Your task to perform on an android device: turn on priority inbox in the gmail app Image 0: 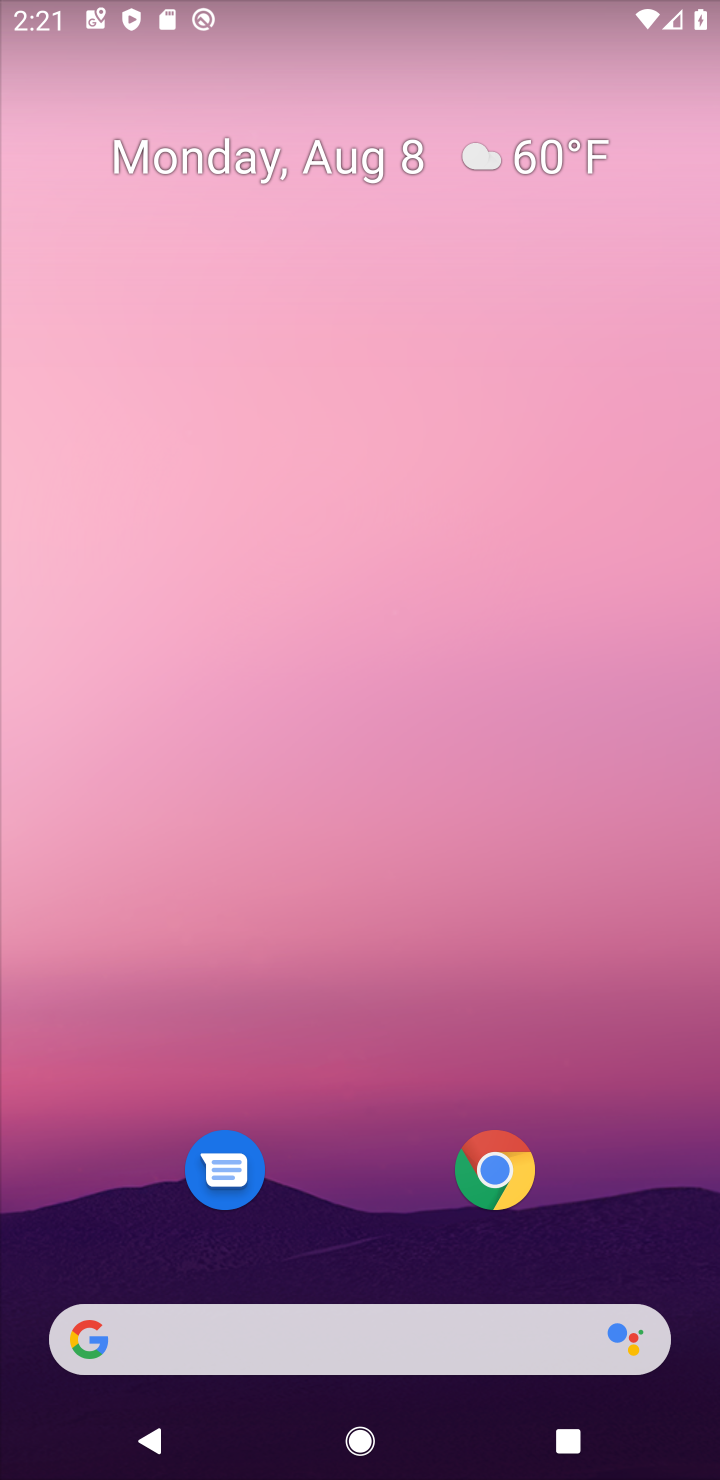
Step 0: drag from (381, 888) to (381, 373)
Your task to perform on an android device: turn on priority inbox in the gmail app Image 1: 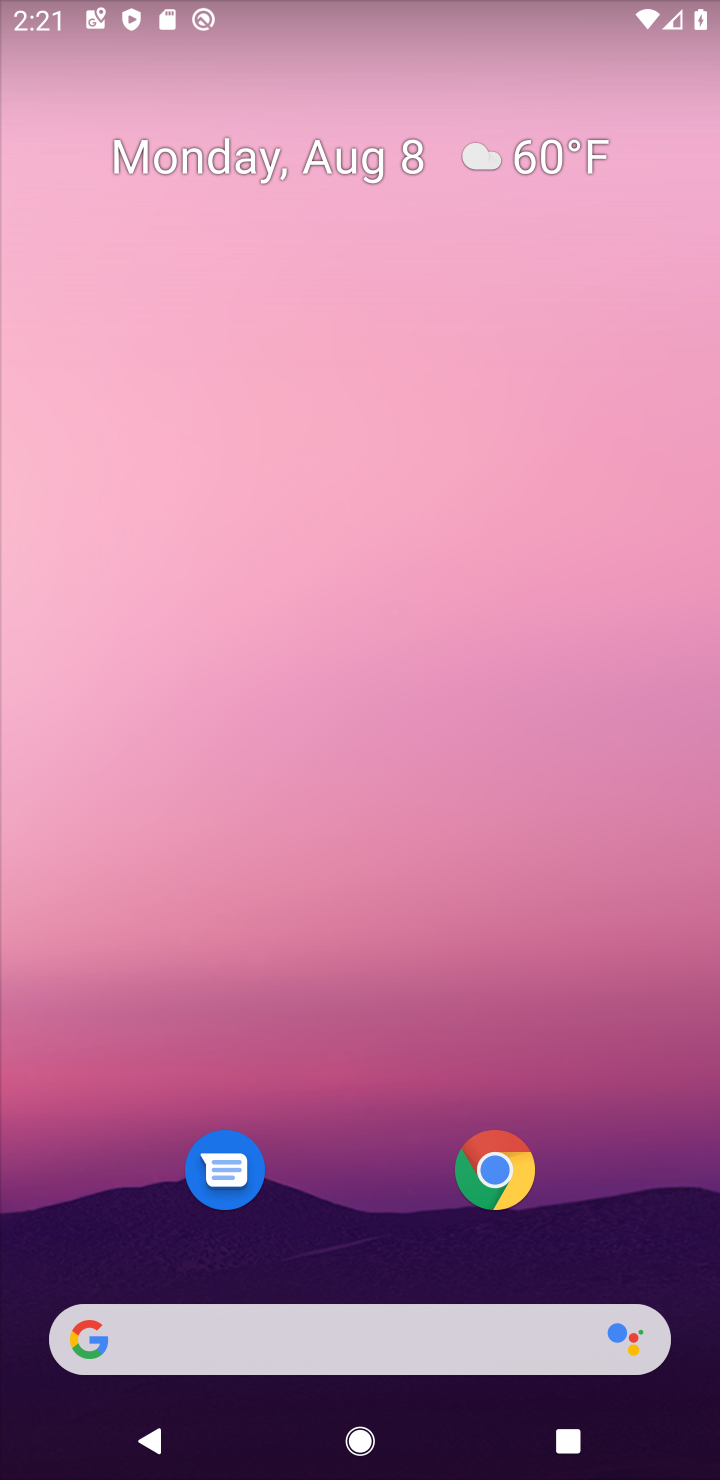
Step 1: drag from (347, 915) to (333, 391)
Your task to perform on an android device: turn on priority inbox in the gmail app Image 2: 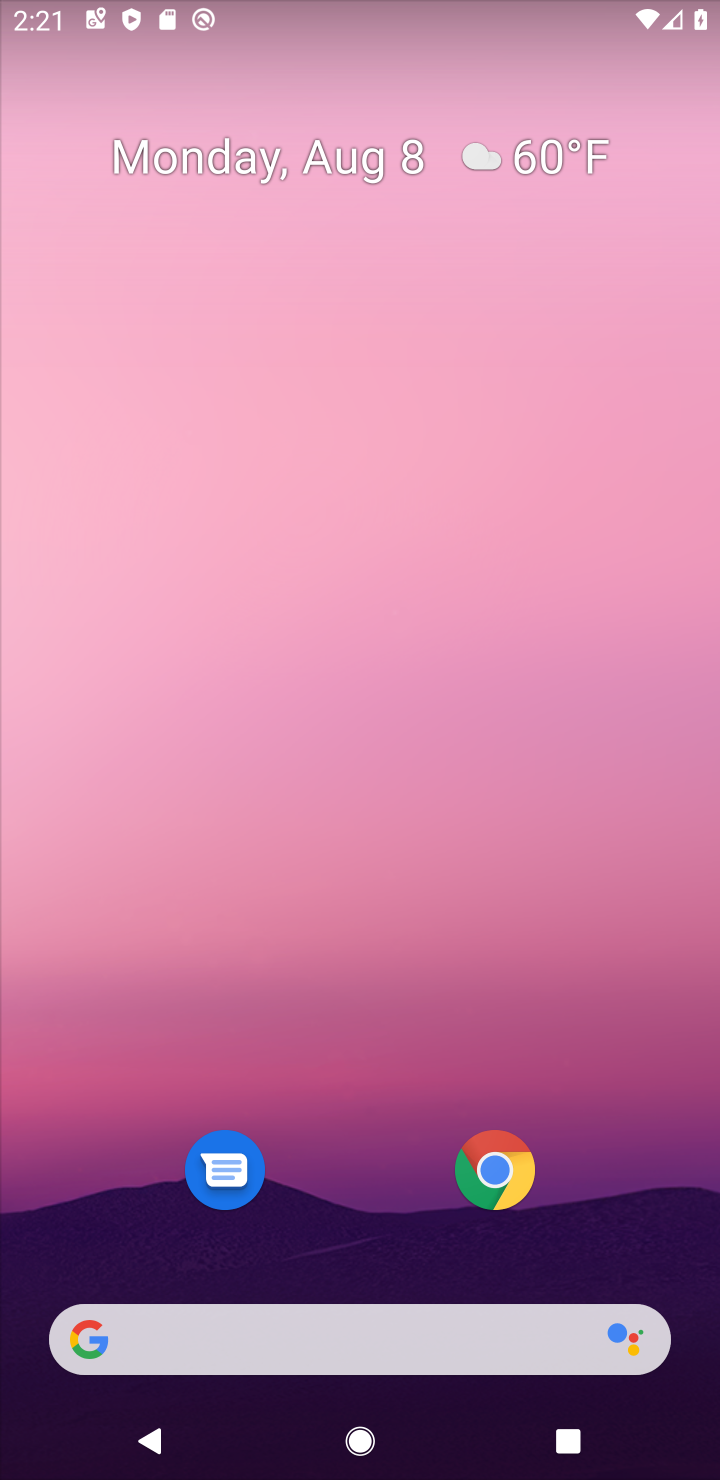
Step 2: drag from (354, 1256) to (364, 529)
Your task to perform on an android device: turn on priority inbox in the gmail app Image 3: 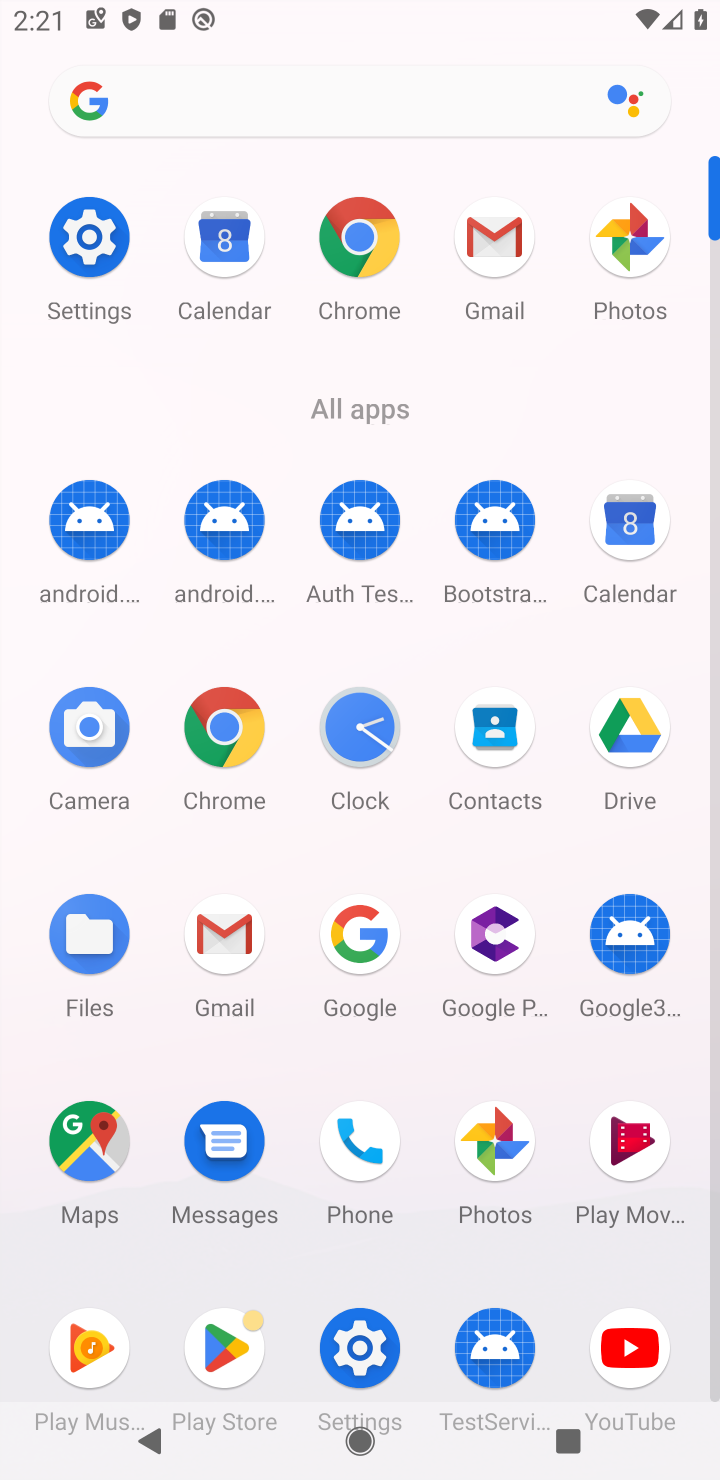
Step 3: click (507, 236)
Your task to perform on an android device: turn on priority inbox in the gmail app Image 4: 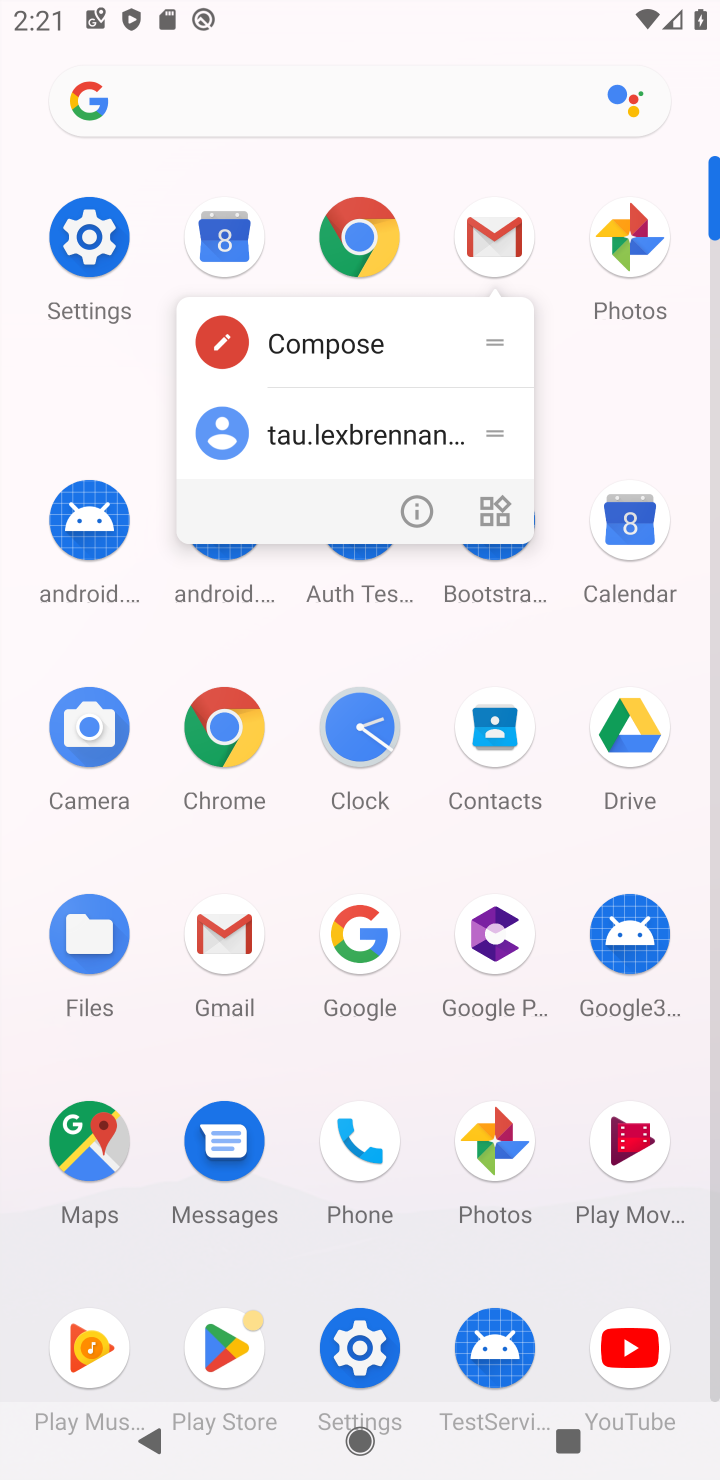
Step 4: click (507, 236)
Your task to perform on an android device: turn on priority inbox in the gmail app Image 5: 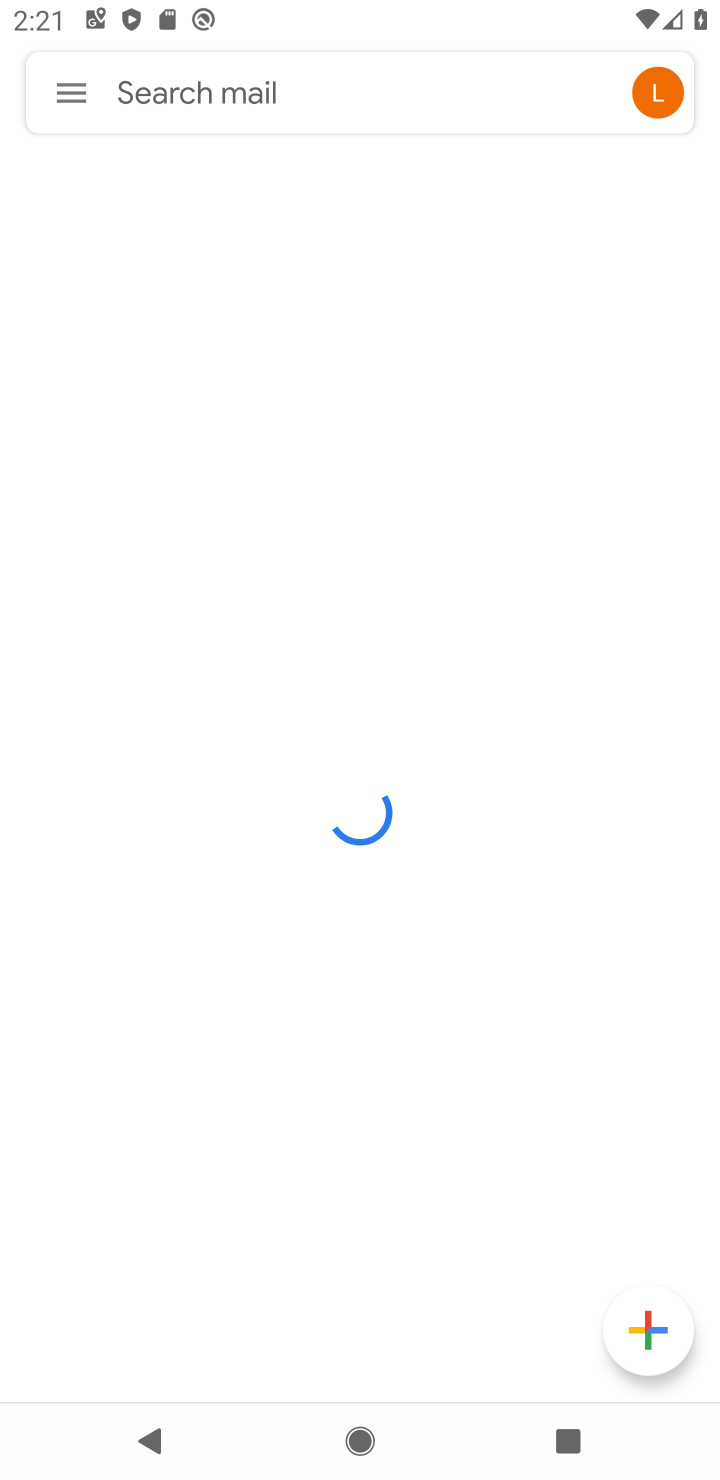
Step 5: click (49, 93)
Your task to perform on an android device: turn on priority inbox in the gmail app Image 6: 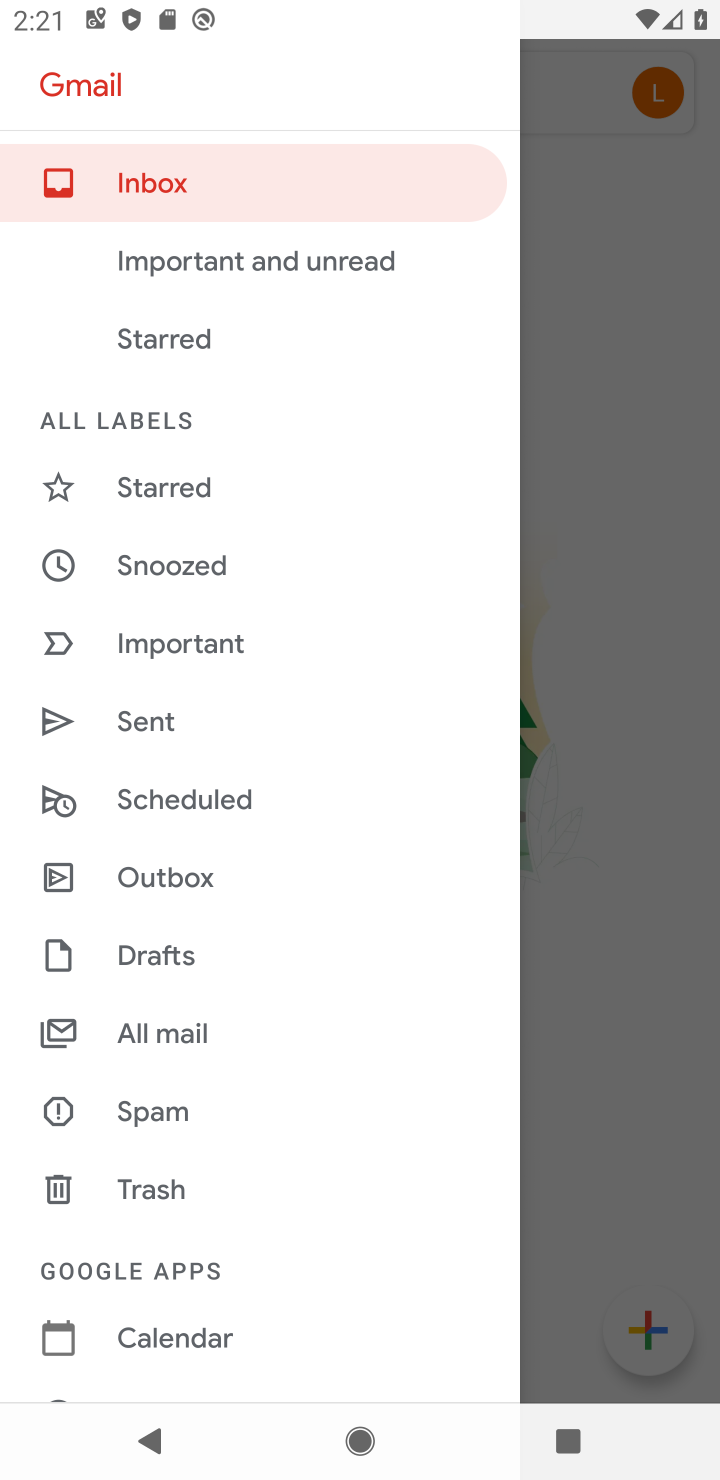
Step 6: drag from (262, 1221) to (324, 632)
Your task to perform on an android device: turn on priority inbox in the gmail app Image 7: 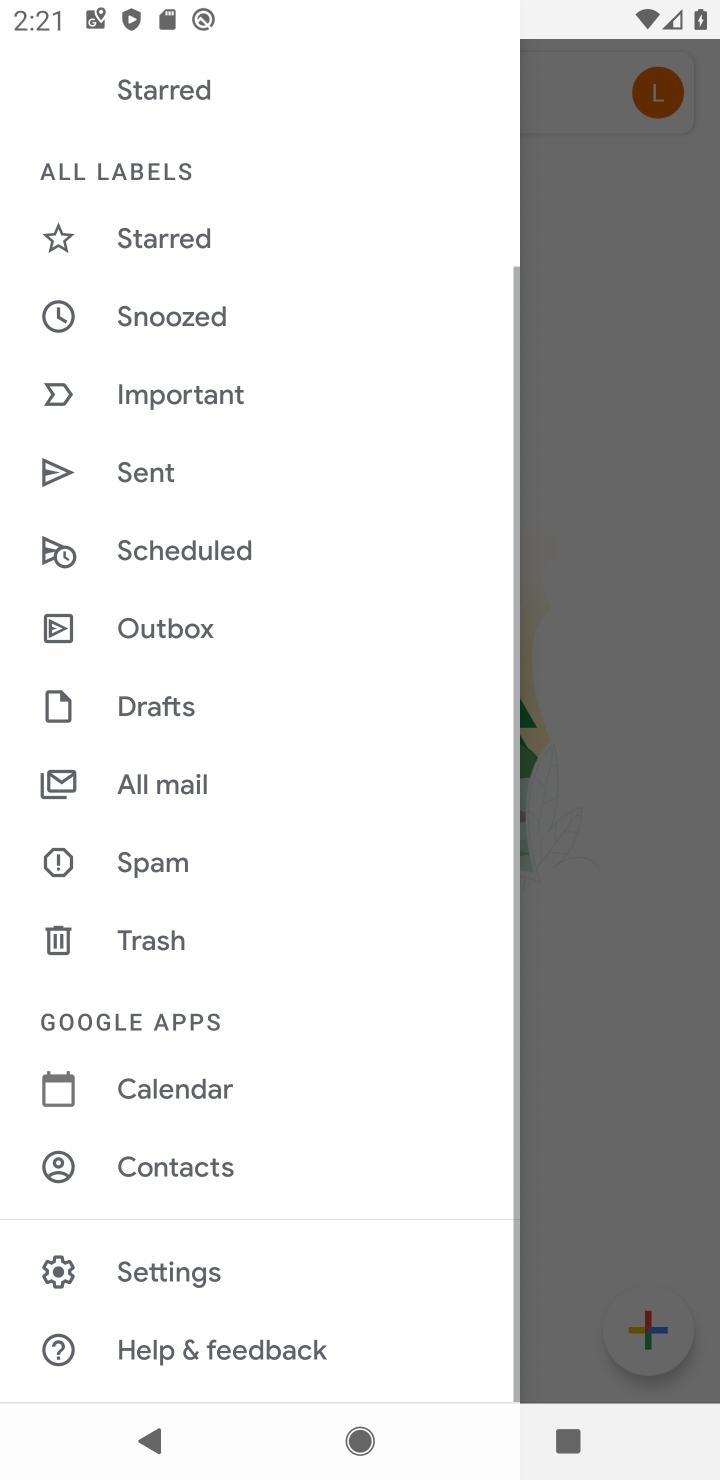
Step 7: click (209, 1264)
Your task to perform on an android device: turn on priority inbox in the gmail app Image 8: 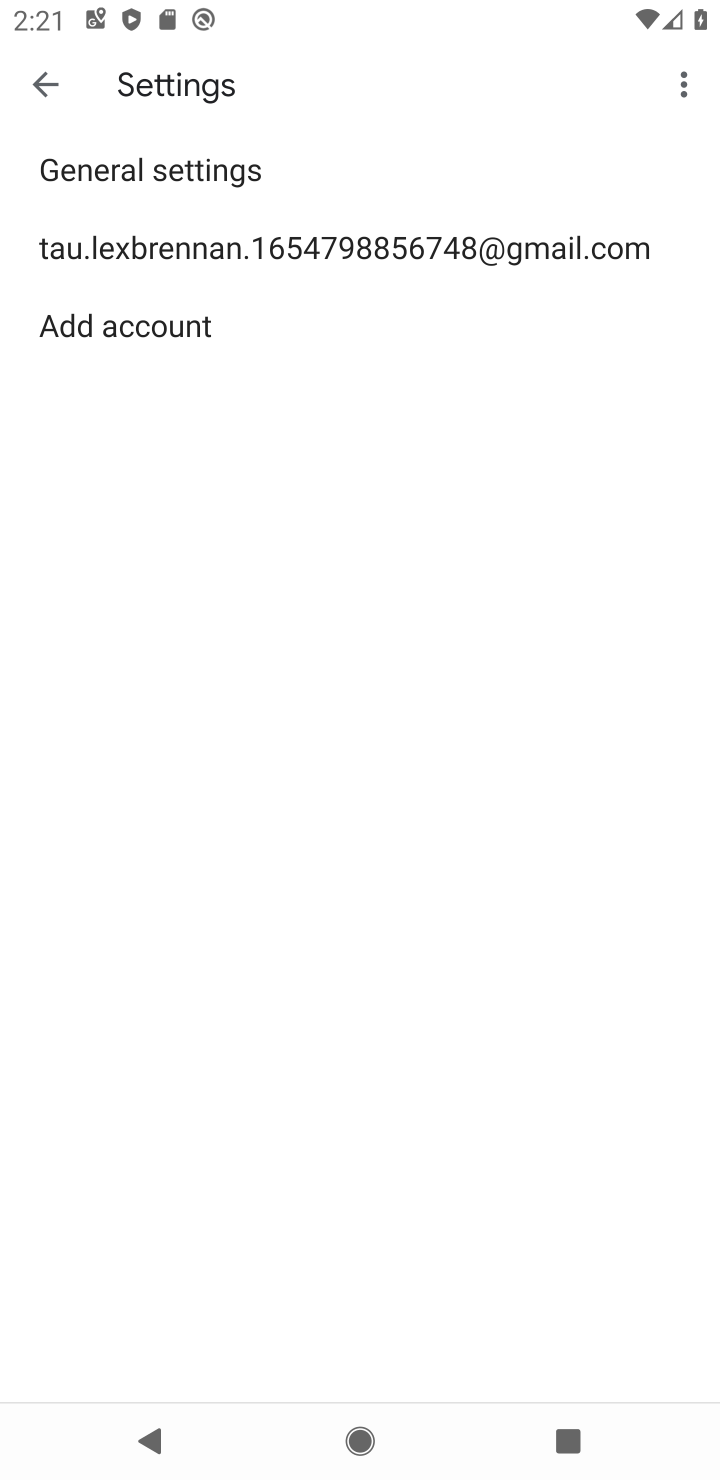
Step 8: click (308, 262)
Your task to perform on an android device: turn on priority inbox in the gmail app Image 9: 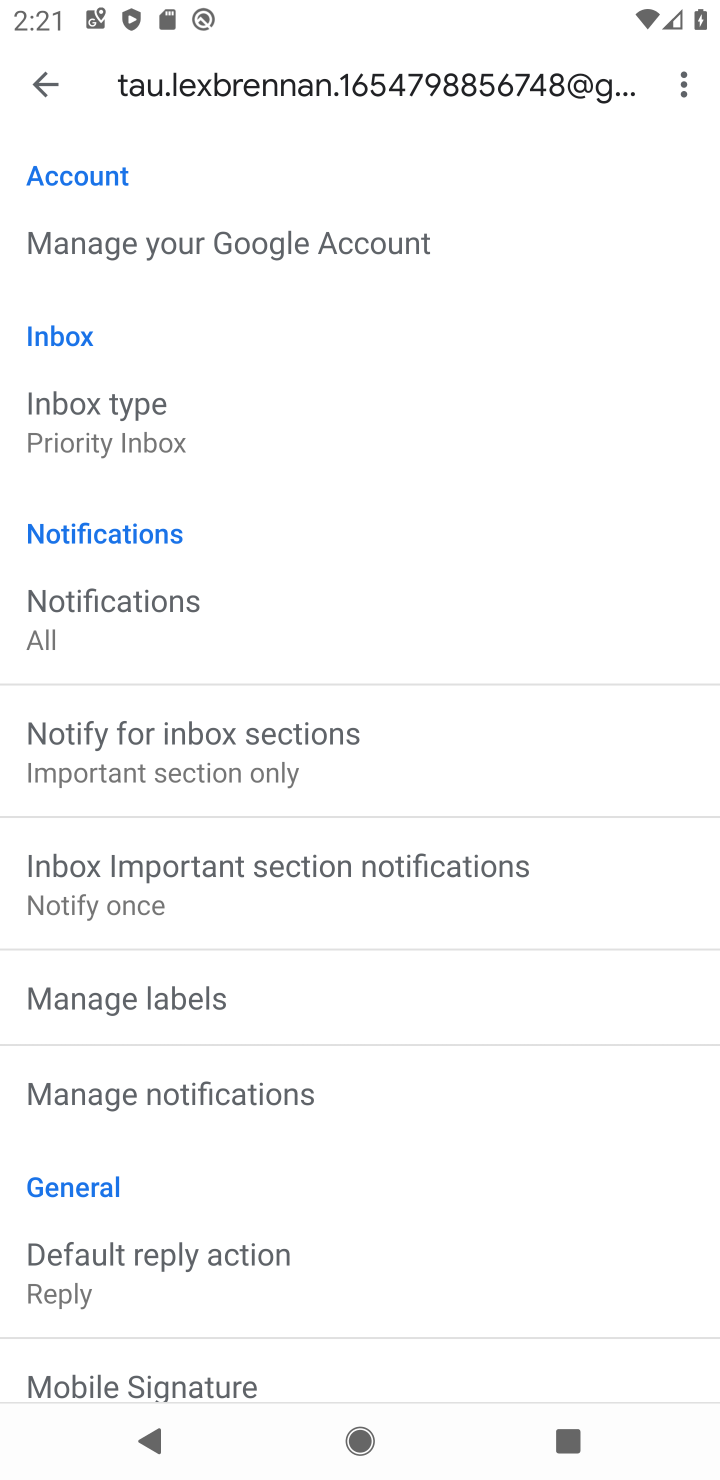
Step 9: click (180, 451)
Your task to perform on an android device: turn on priority inbox in the gmail app Image 10: 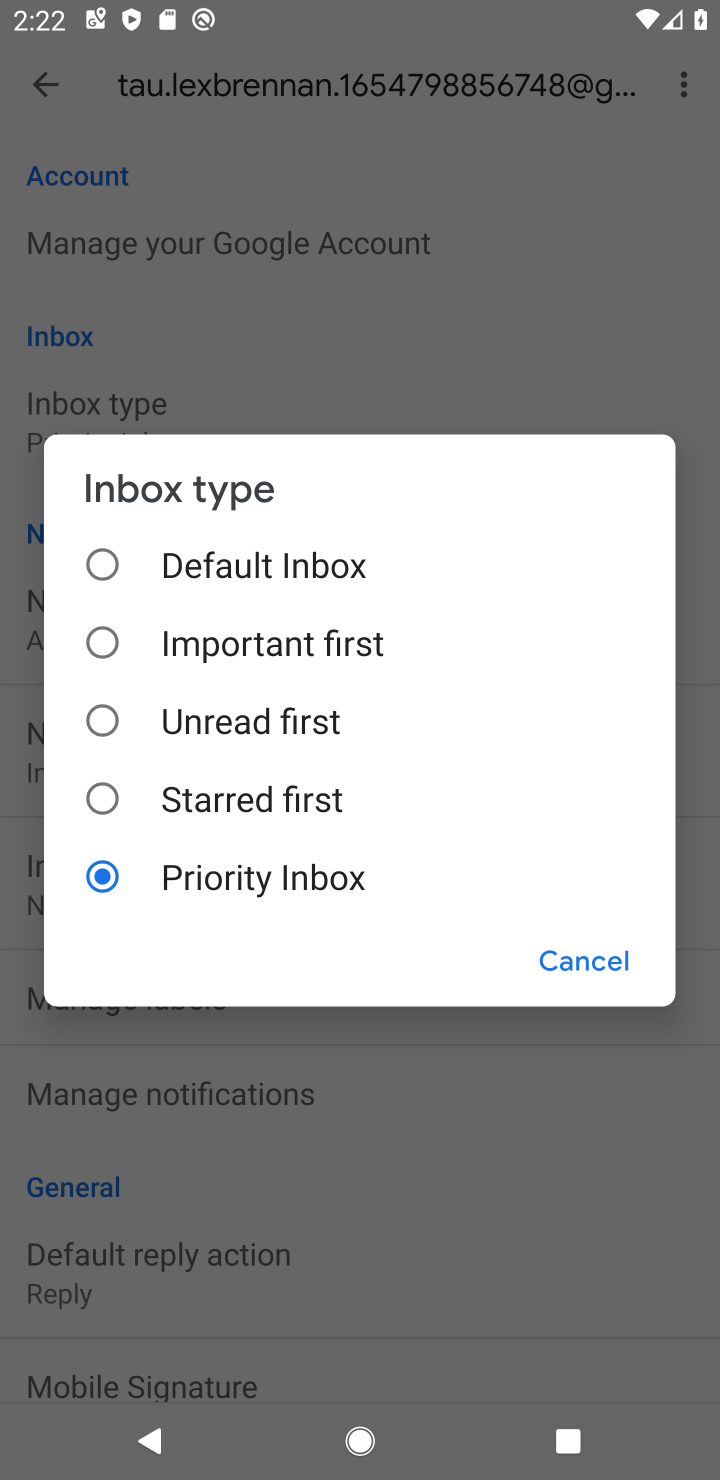
Step 10: task complete